Your task to perform on an android device: open app "Google News" Image 0: 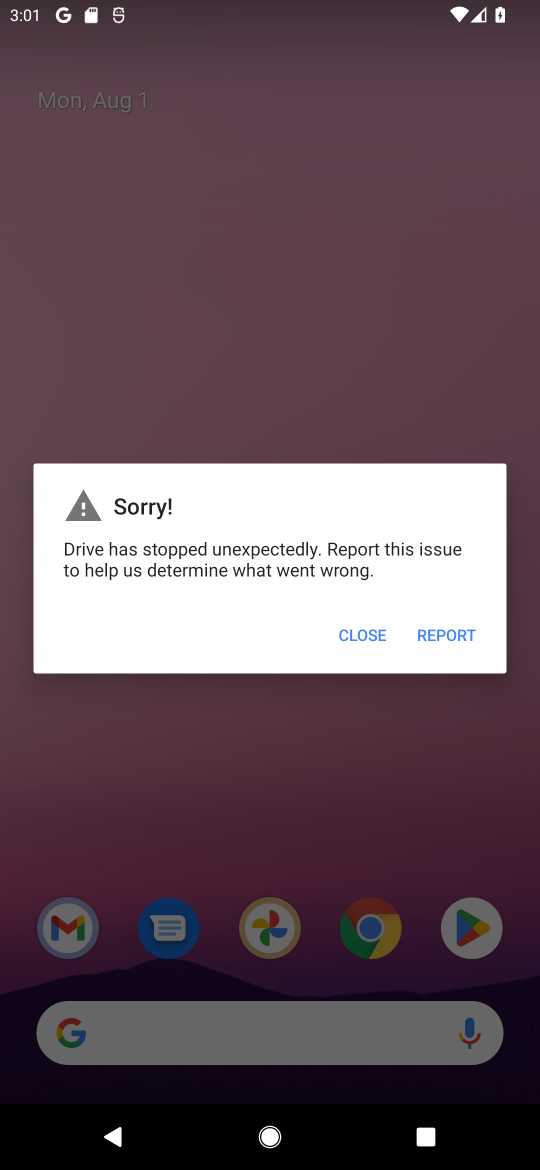
Step 0: press home button
Your task to perform on an android device: open app "Google News" Image 1: 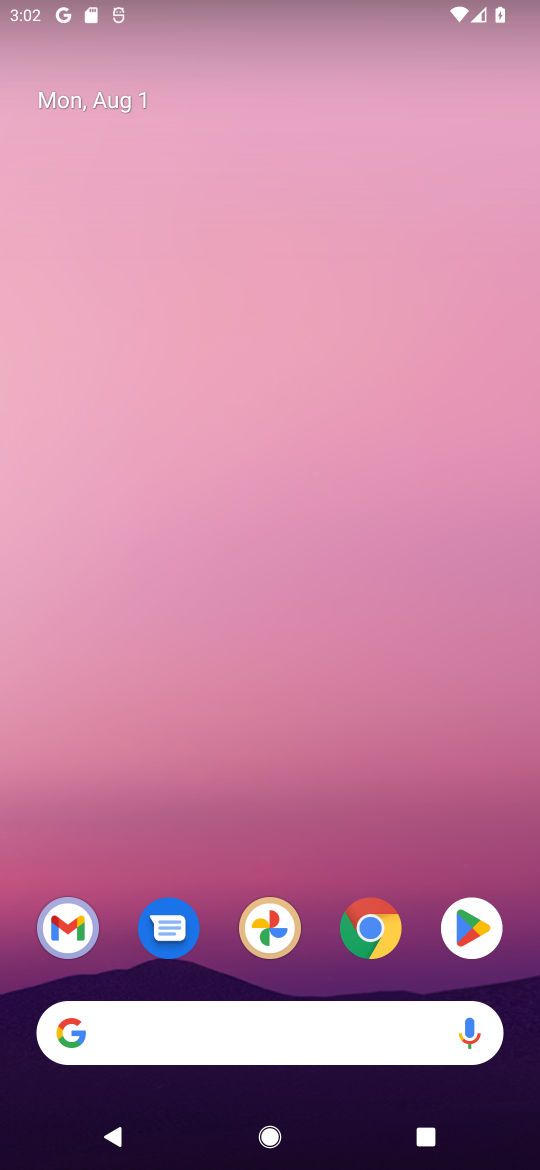
Step 1: click (490, 919)
Your task to perform on an android device: open app "Google News" Image 2: 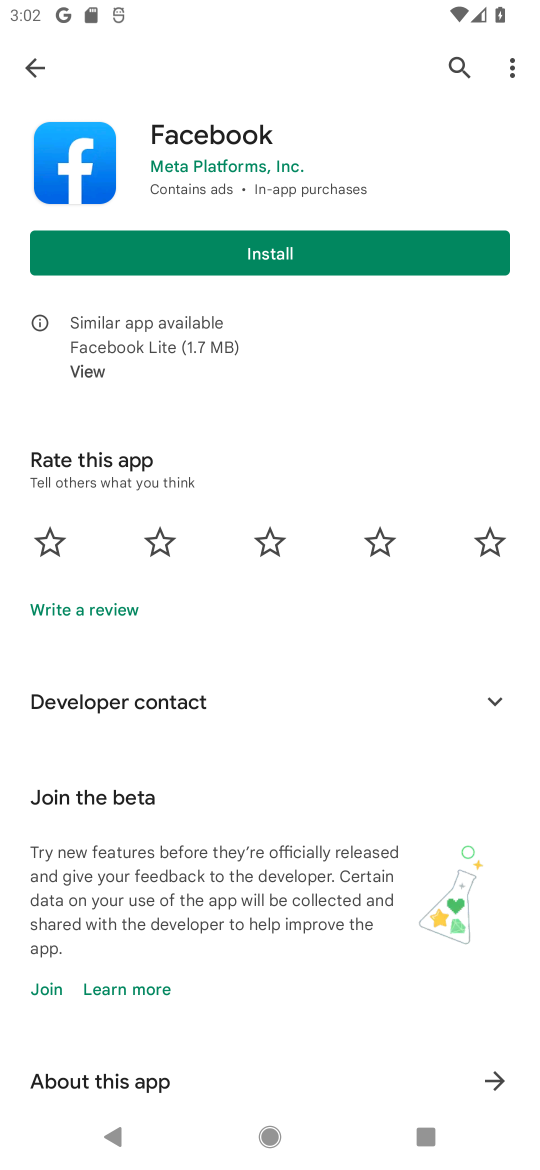
Step 2: click (451, 68)
Your task to perform on an android device: open app "Google News" Image 3: 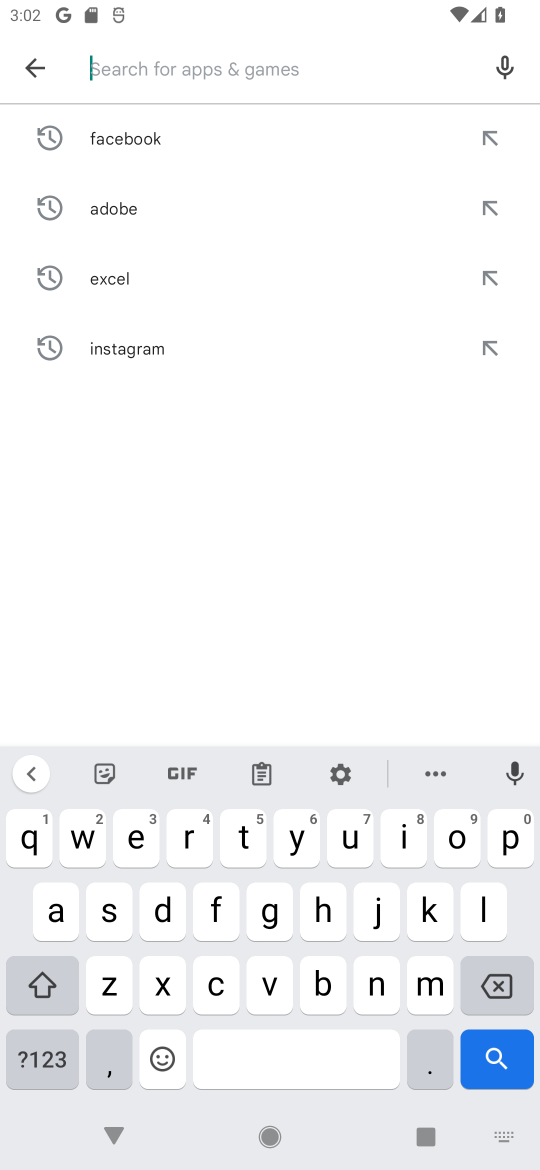
Step 3: click (278, 915)
Your task to perform on an android device: open app "Google News" Image 4: 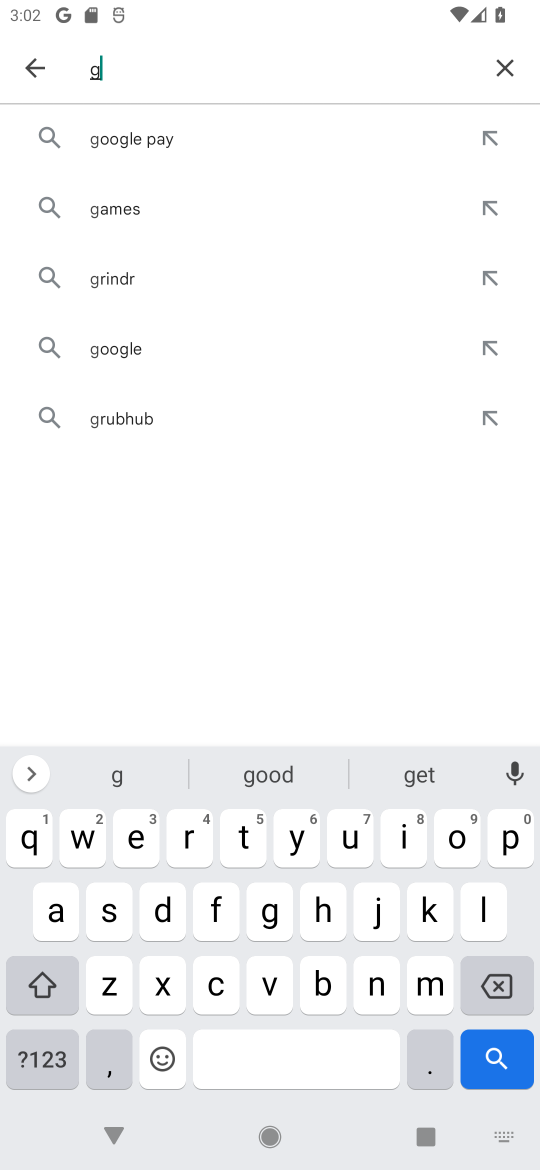
Step 4: click (495, 981)
Your task to perform on an android device: open app "Google News" Image 5: 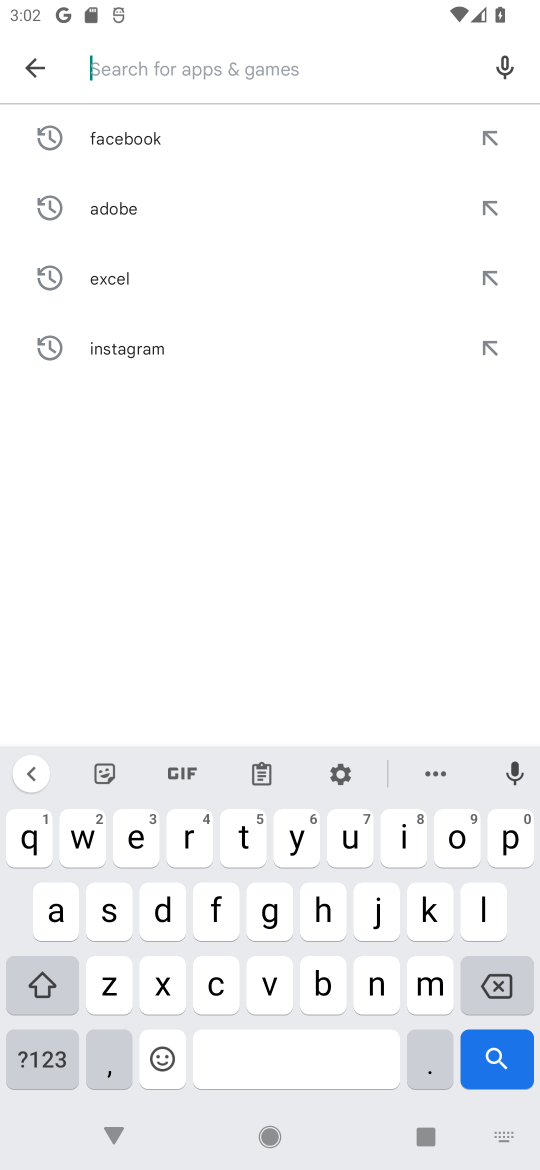
Step 5: type "google news"
Your task to perform on an android device: open app "Google News" Image 6: 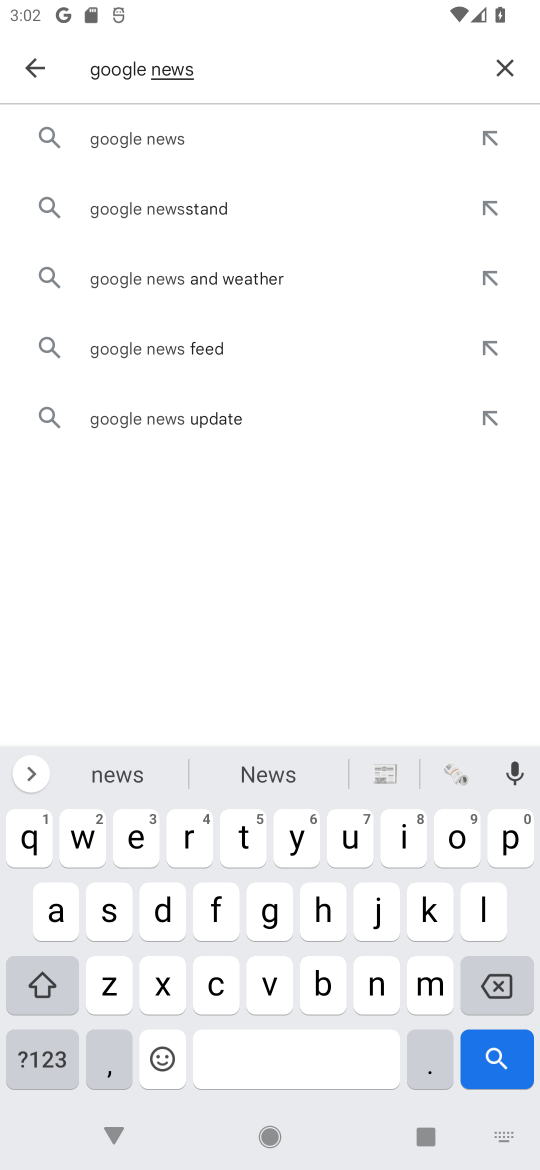
Step 6: click (196, 138)
Your task to perform on an android device: open app "Google News" Image 7: 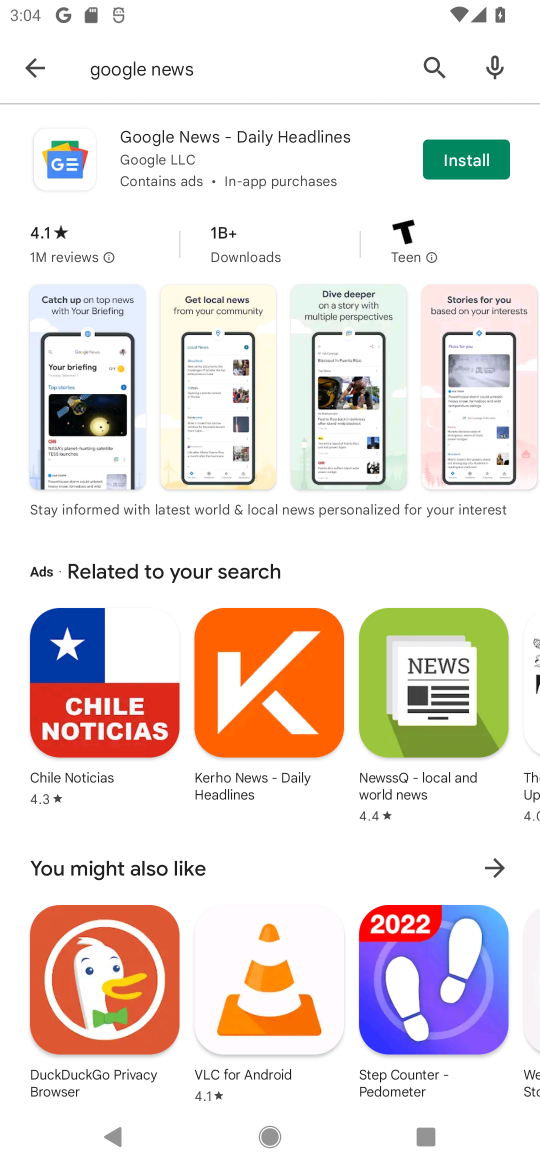
Step 7: task complete